Your task to perform on an android device: delete a single message in the gmail app Image 0: 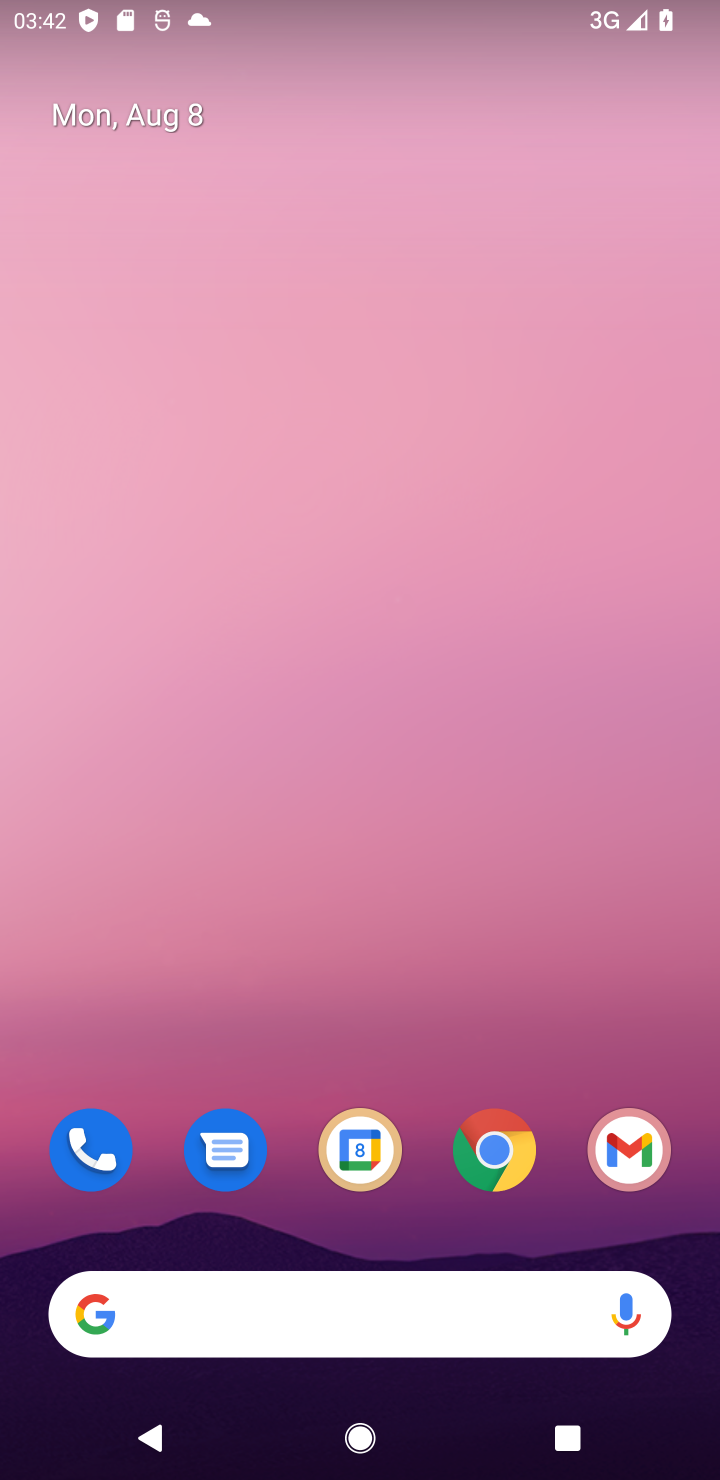
Step 0: click (651, 1170)
Your task to perform on an android device: delete a single message in the gmail app Image 1: 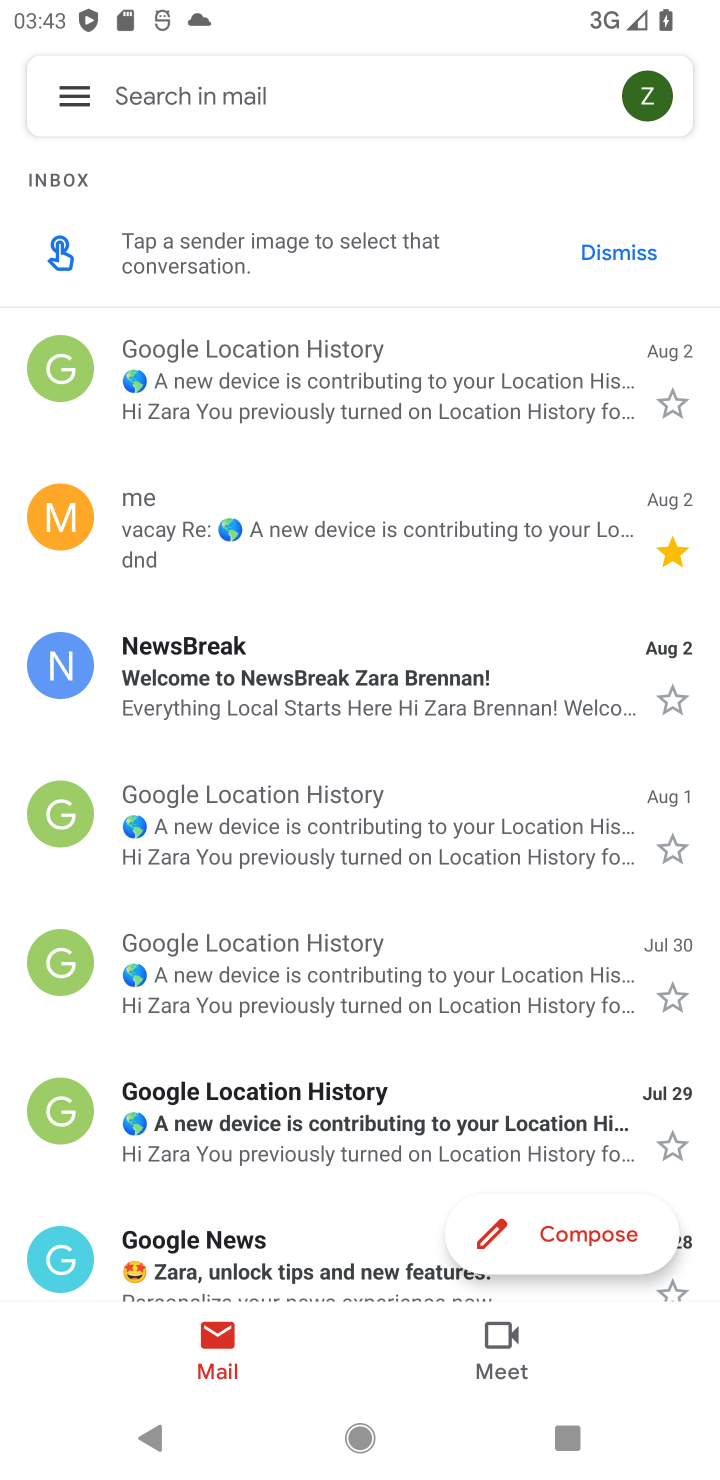
Step 1: task complete